Your task to perform on an android device: check out phone information Image 0: 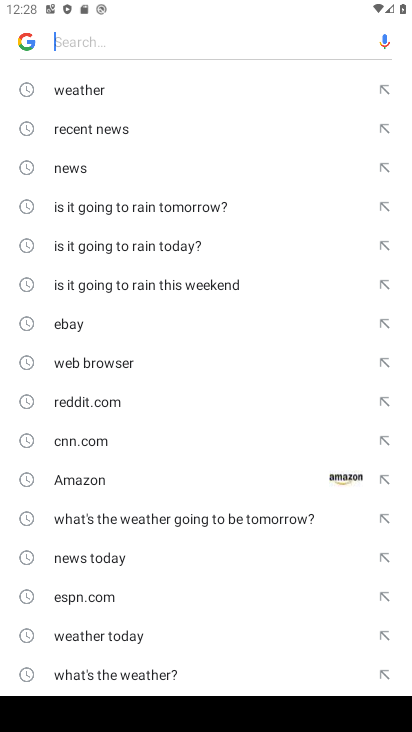
Step 0: press home button
Your task to perform on an android device: check out phone information Image 1: 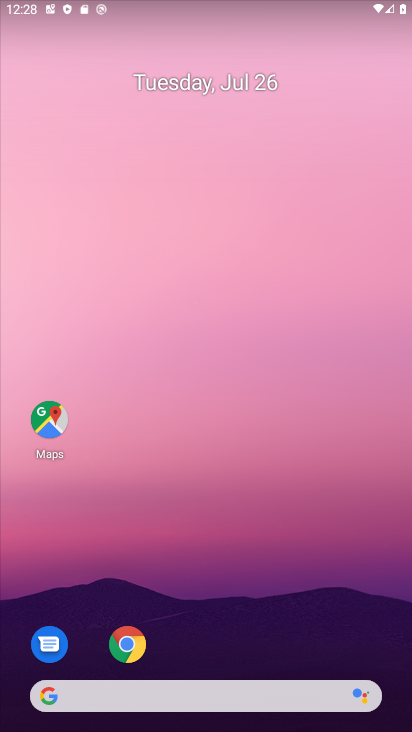
Step 1: drag from (201, 631) to (215, 86)
Your task to perform on an android device: check out phone information Image 2: 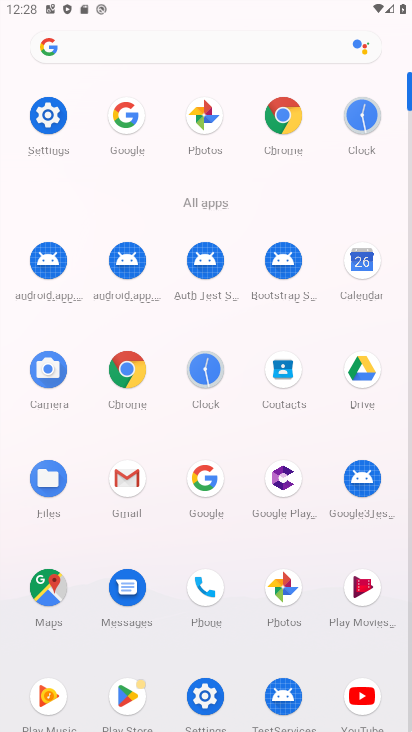
Step 2: click (42, 118)
Your task to perform on an android device: check out phone information Image 3: 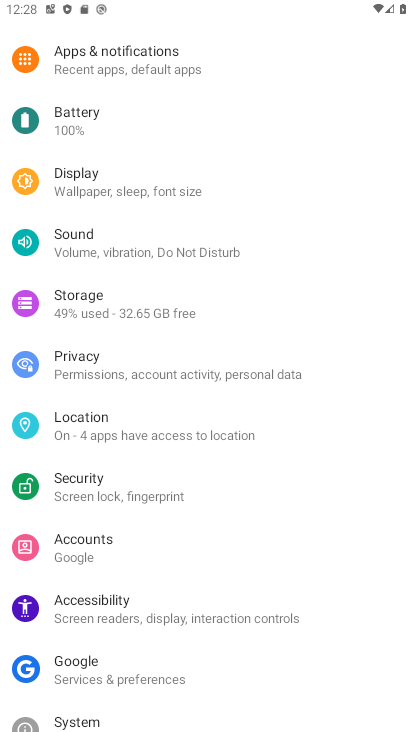
Step 3: drag from (247, 659) to (219, 176)
Your task to perform on an android device: check out phone information Image 4: 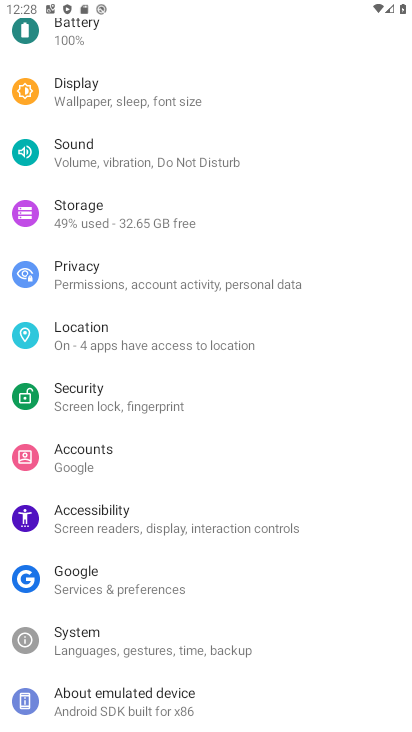
Step 4: click (189, 696)
Your task to perform on an android device: check out phone information Image 5: 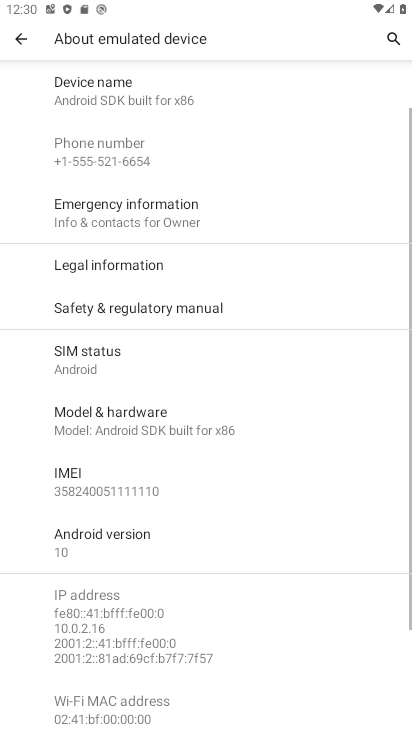
Step 5: task complete